Your task to perform on an android device: check google app version Image 0: 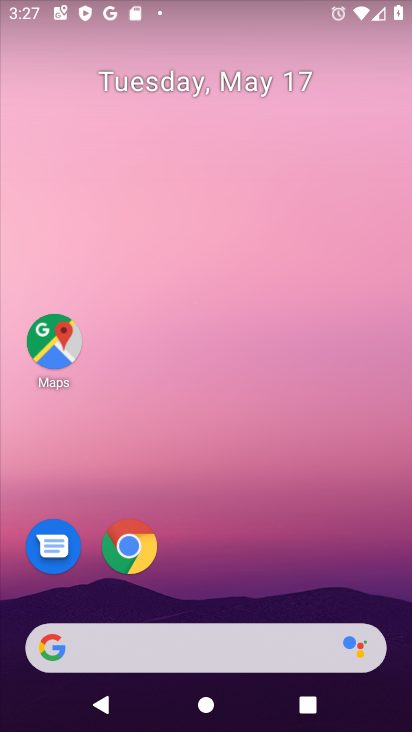
Step 0: drag from (397, 630) to (330, 192)
Your task to perform on an android device: check google app version Image 1: 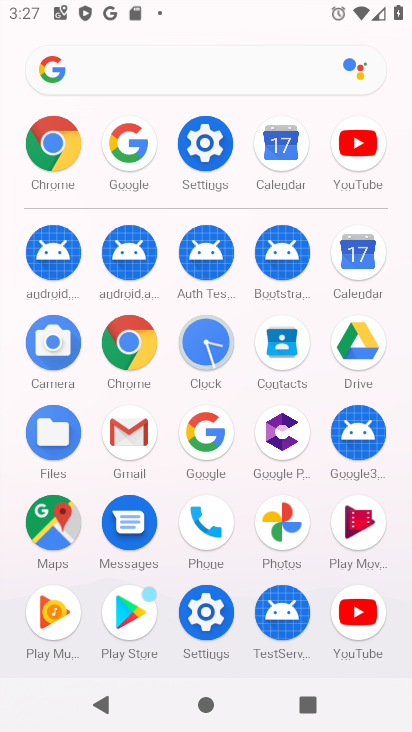
Step 1: click (203, 439)
Your task to perform on an android device: check google app version Image 2: 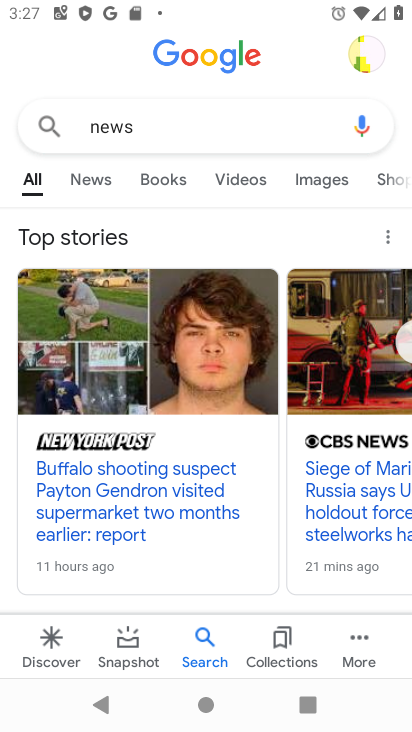
Step 2: click (362, 657)
Your task to perform on an android device: check google app version Image 3: 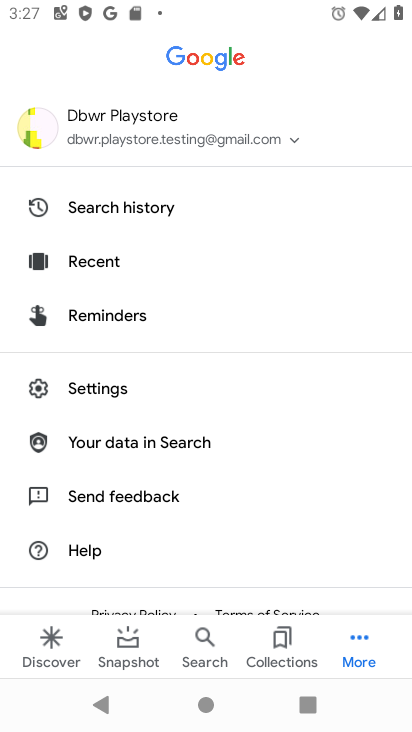
Step 3: click (69, 384)
Your task to perform on an android device: check google app version Image 4: 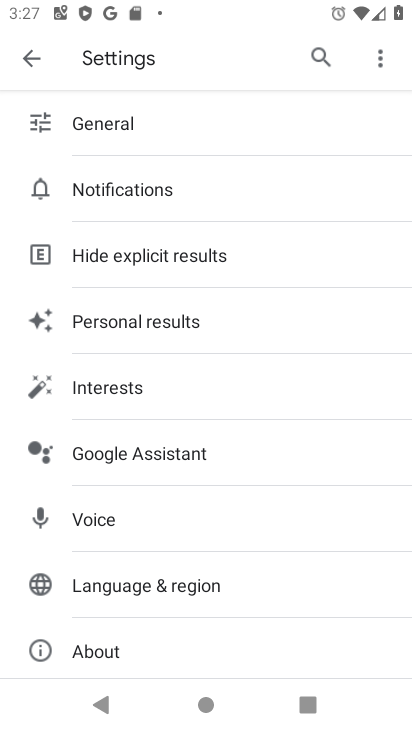
Step 4: click (82, 652)
Your task to perform on an android device: check google app version Image 5: 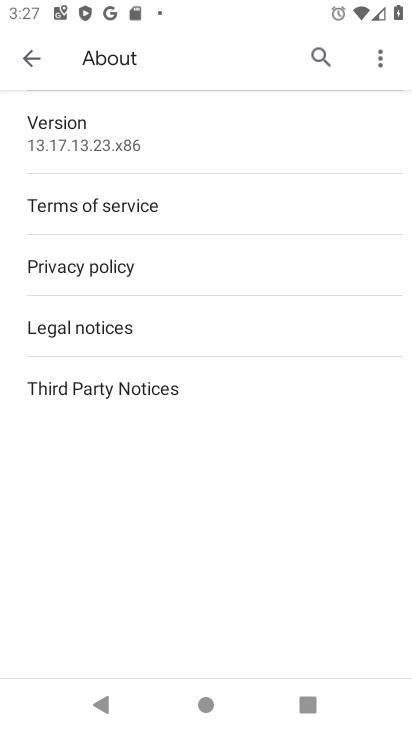
Step 5: click (44, 136)
Your task to perform on an android device: check google app version Image 6: 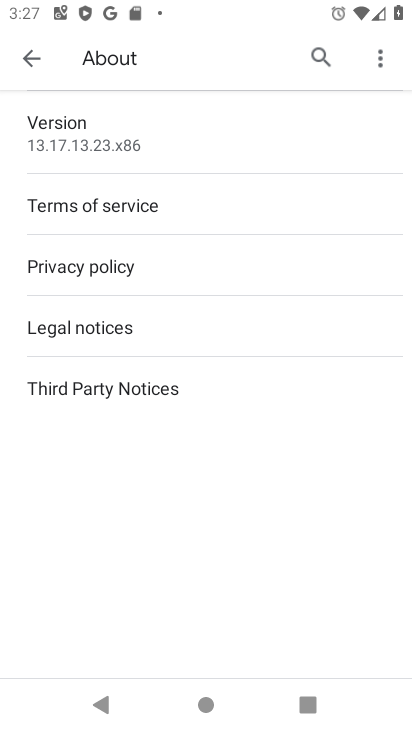
Step 6: task complete